Your task to perform on an android device: turn on improve location accuracy Image 0: 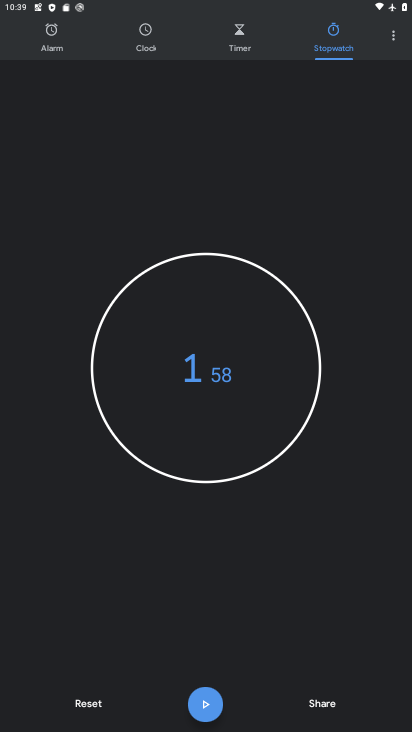
Step 0: press home button
Your task to perform on an android device: turn on improve location accuracy Image 1: 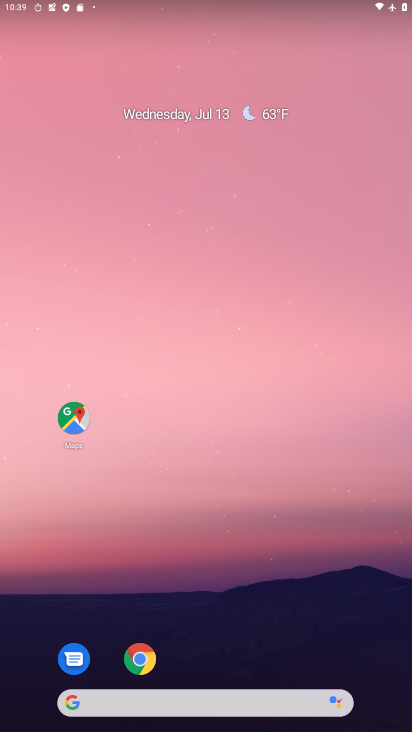
Step 1: drag from (316, 618) to (219, 81)
Your task to perform on an android device: turn on improve location accuracy Image 2: 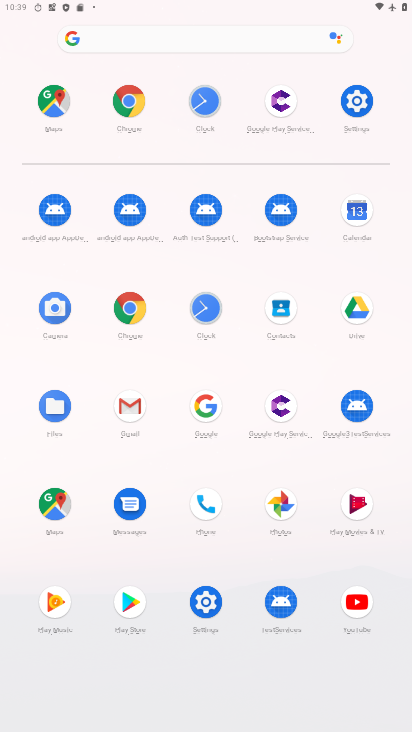
Step 2: click (347, 95)
Your task to perform on an android device: turn on improve location accuracy Image 3: 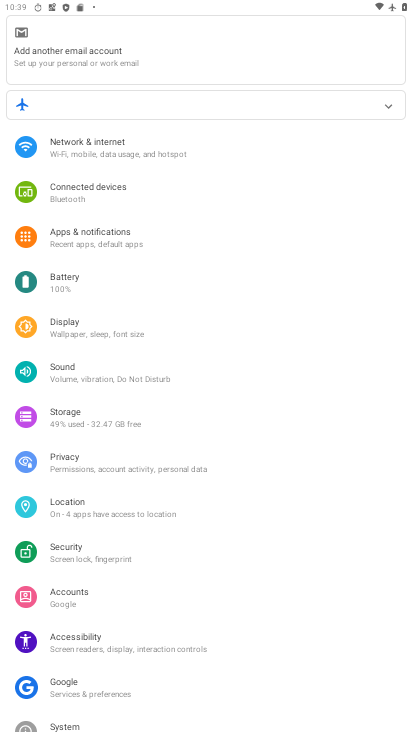
Step 3: click (82, 503)
Your task to perform on an android device: turn on improve location accuracy Image 4: 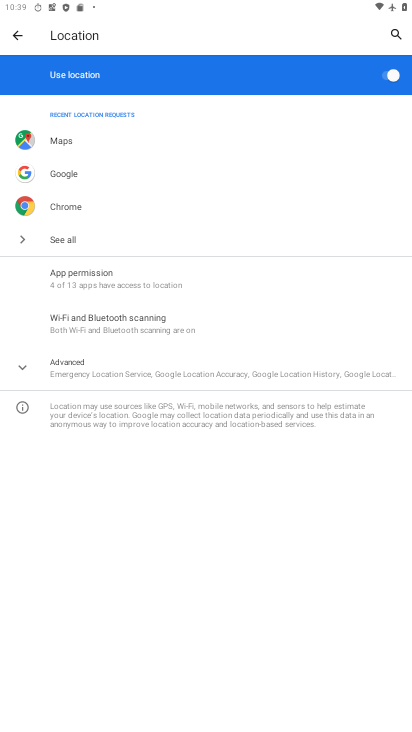
Step 4: click (96, 370)
Your task to perform on an android device: turn on improve location accuracy Image 5: 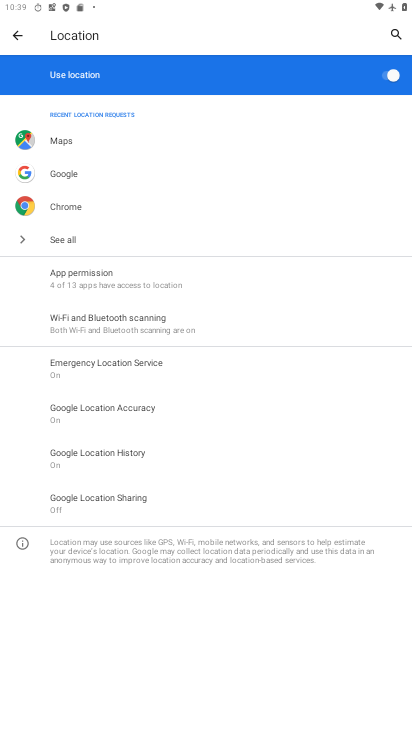
Step 5: click (135, 416)
Your task to perform on an android device: turn on improve location accuracy Image 6: 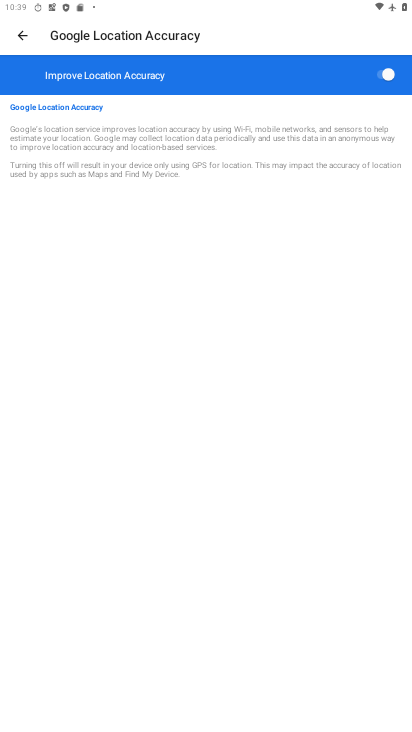
Step 6: task complete